Your task to perform on an android device: check out phone information Image 0: 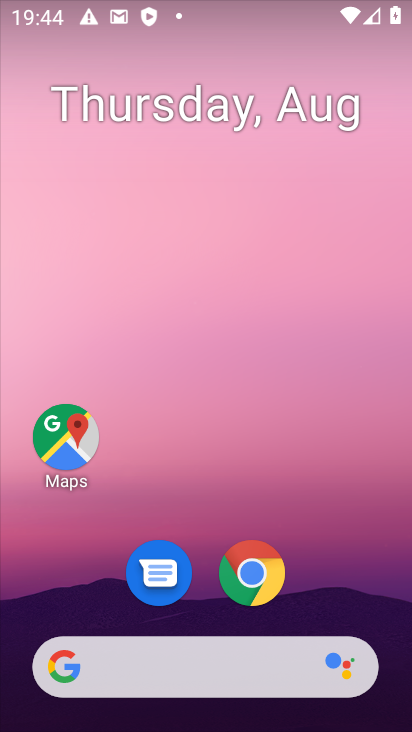
Step 0: drag from (185, 677) to (166, 139)
Your task to perform on an android device: check out phone information Image 1: 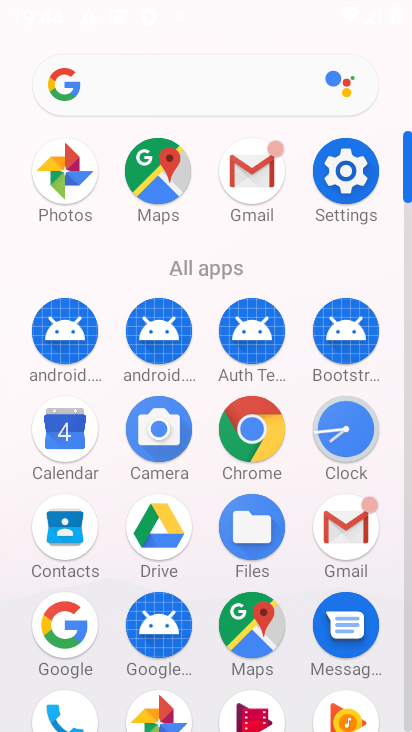
Step 1: click (330, 187)
Your task to perform on an android device: check out phone information Image 2: 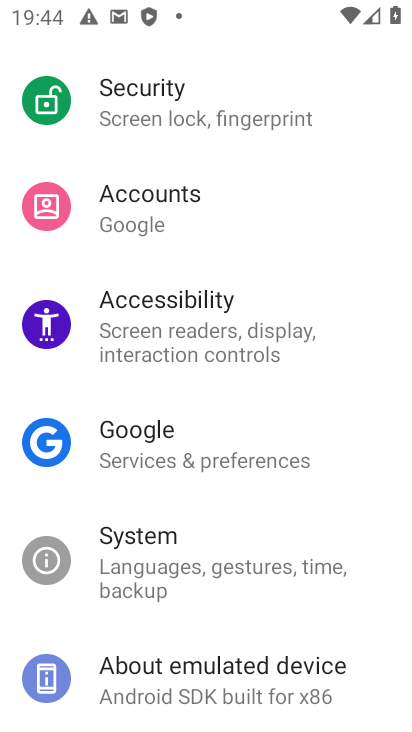
Step 2: drag from (224, 612) to (208, 36)
Your task to perform on an android device: check out phone information Image 3: 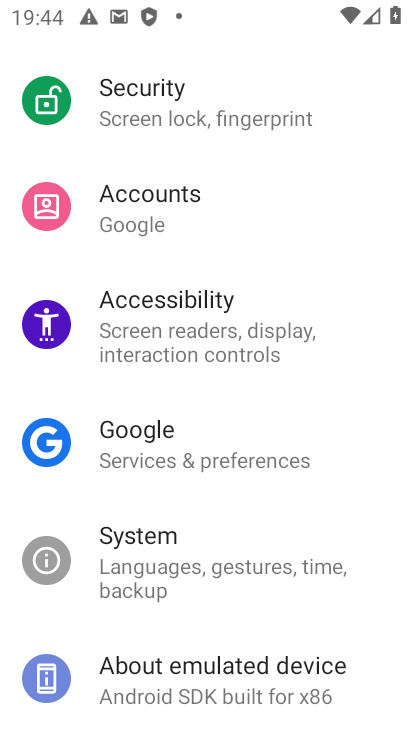
Step 3: click (167, 670)
Your task to perform on an android device: check out phone information Image 4: 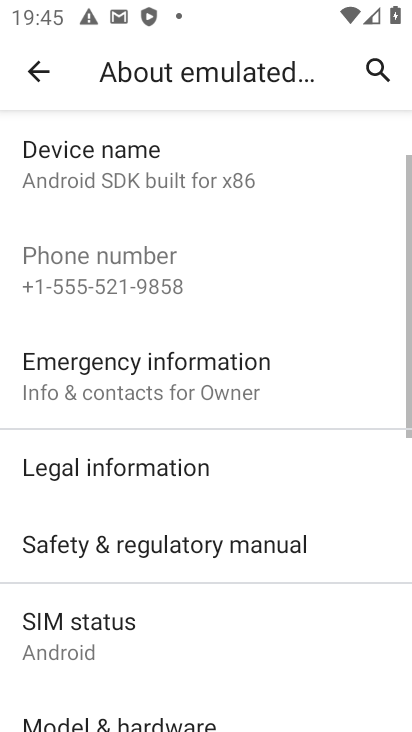
Step 4: task complete